Your task to perform on an android device: Is it going to rain tomorrow? Image 0: 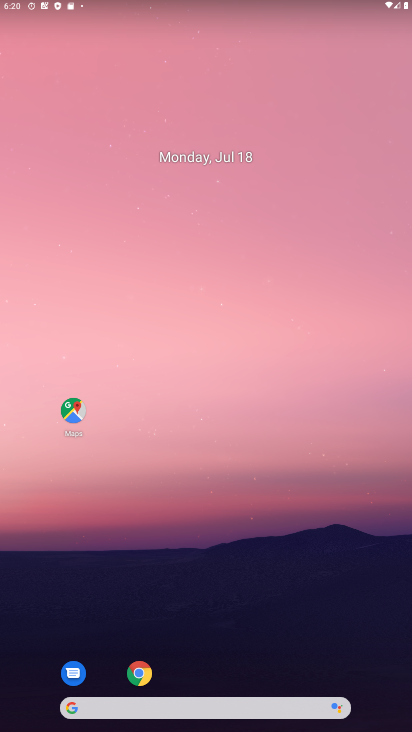
Step 0: click (184, 709)
Your task to perform on an android device: Is it going to rain tomorrow? Image 1: 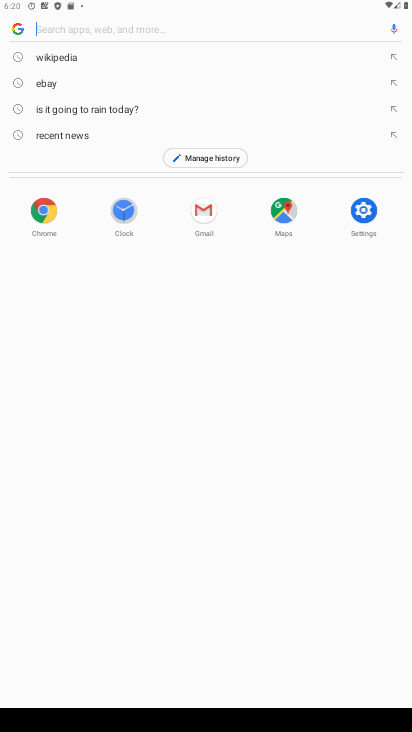
Step 1: type "Is it going to rain tomorrow?"
Your task to perform on an android device: Is it going to rain tomorrow? Image 2: 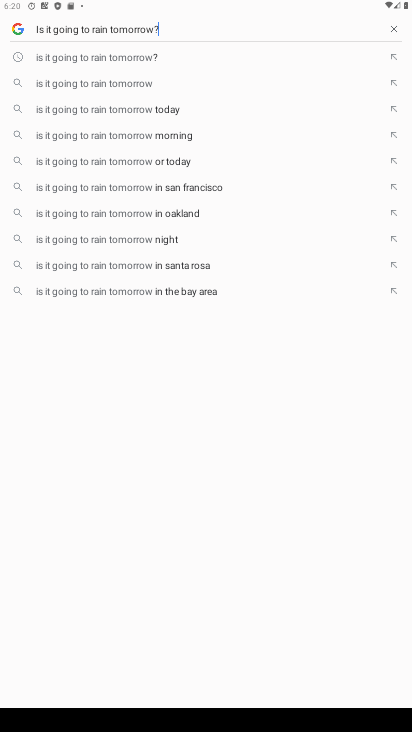
Step 2: press enter
Your task to perform on an android device: Is it going to rain tomorrow? Image 3: 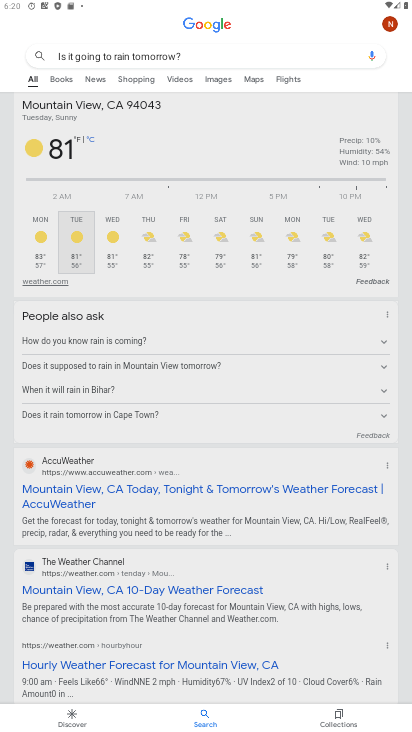
Step 3: task complete